Your task to perform on an android device: Add "razer blade" to the cart on amazon Image 0: 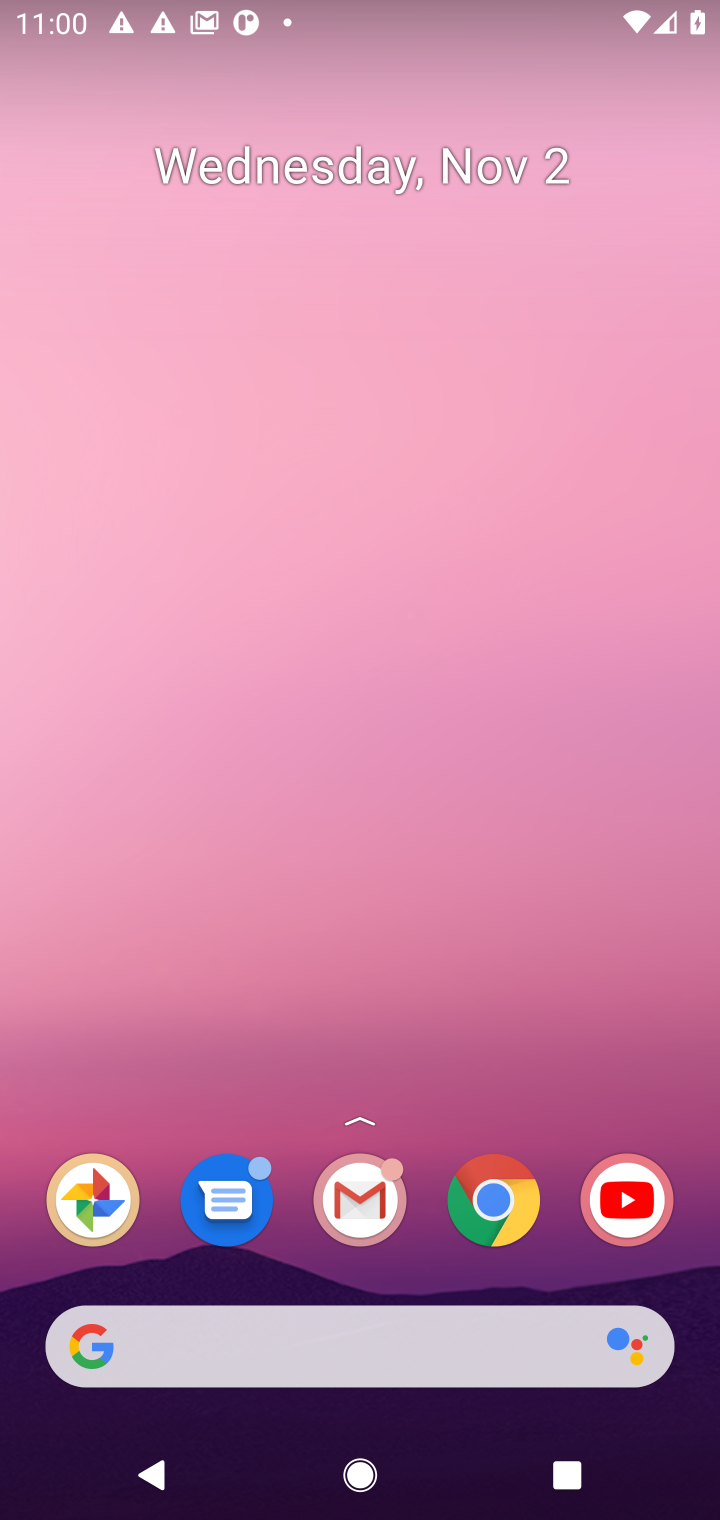
Step 0: click (495, 1186)
Your task to perform on an android device: Add "razer blade" to the cart on amazon Image 1: 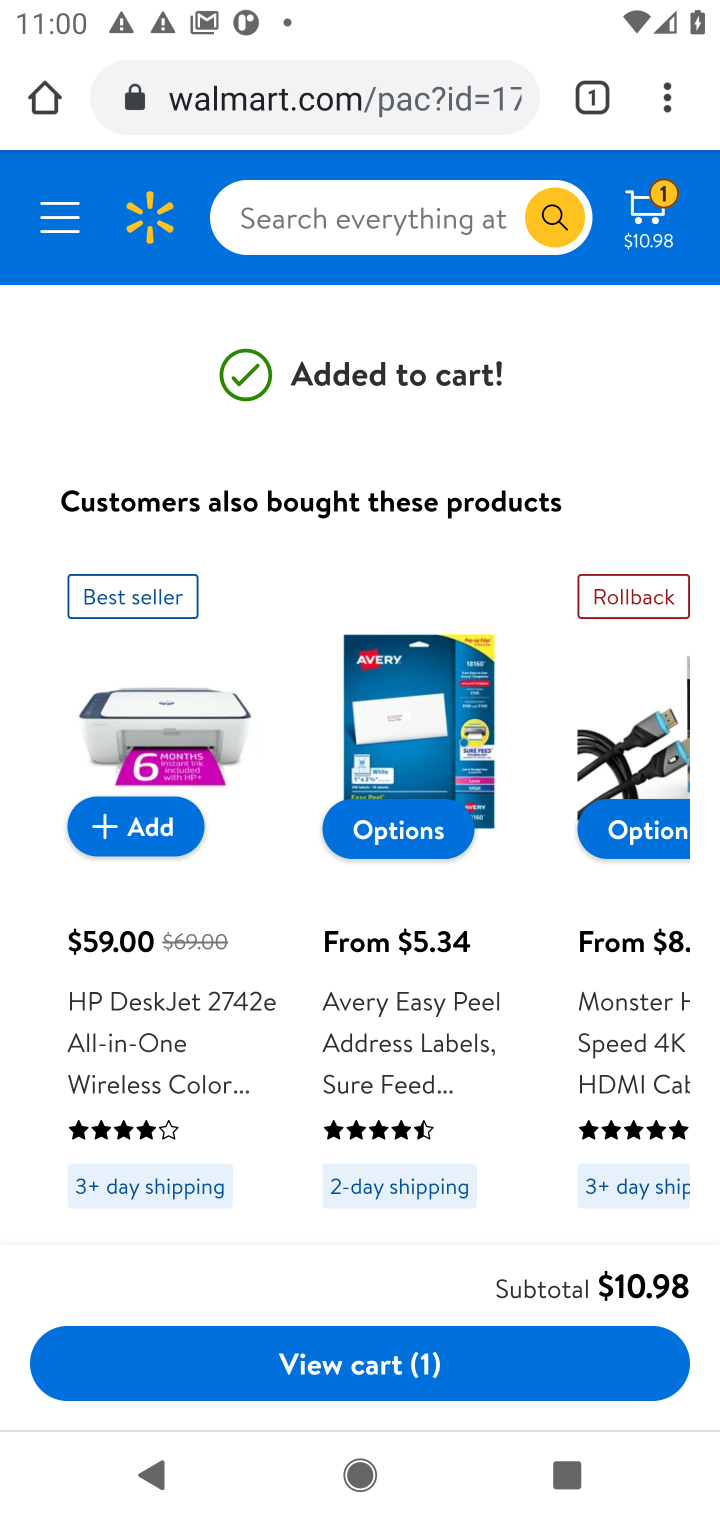
Step 1: click (389, 107)
Your task to perform on an android device: Add "razer blade" to the cart on amazon Image 2: 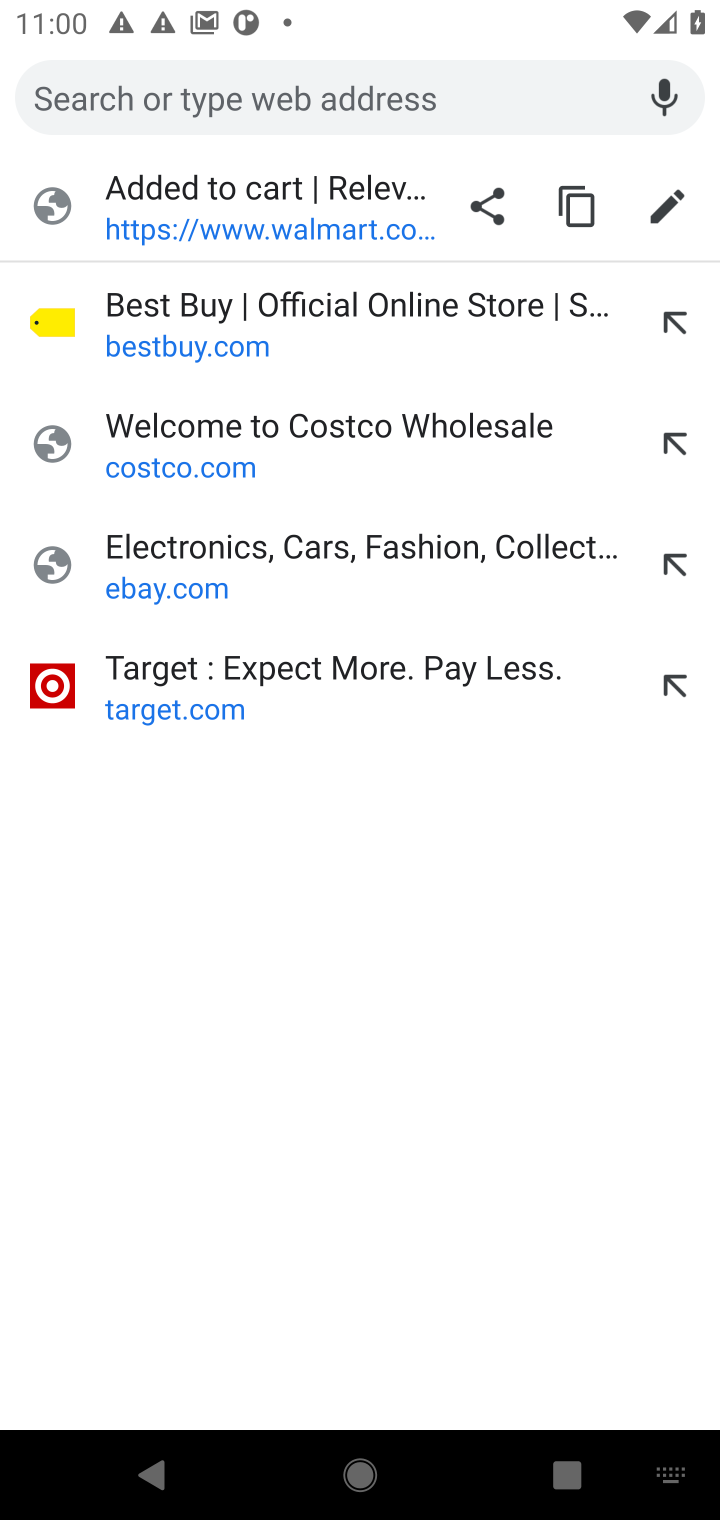
Step 2: type "amazon"
Your task to perform on an android device: Add "razer blade" to the cart on amazon Image 3: 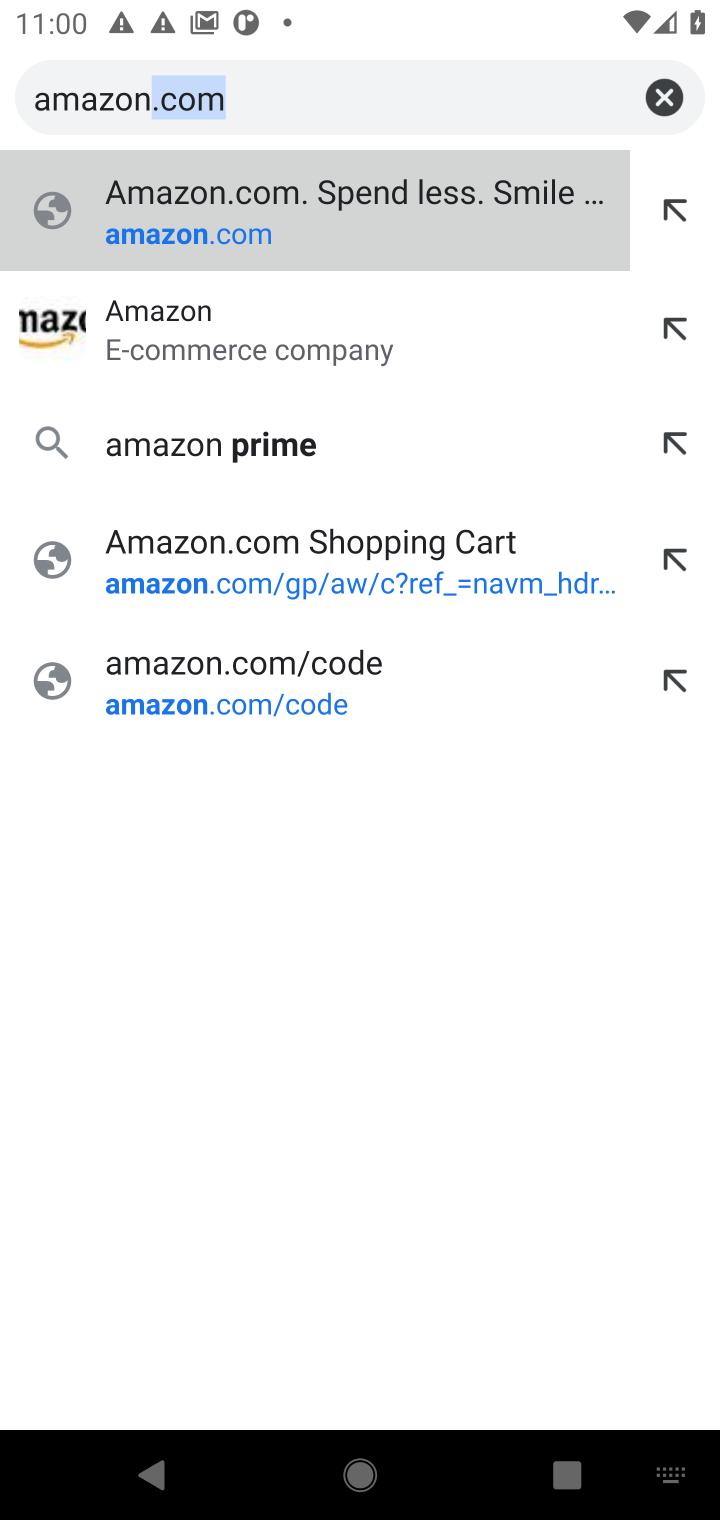
Step 3: press enter
Your task to perform on an android device: Add "razer blade" to the cart on amazon Image 4: 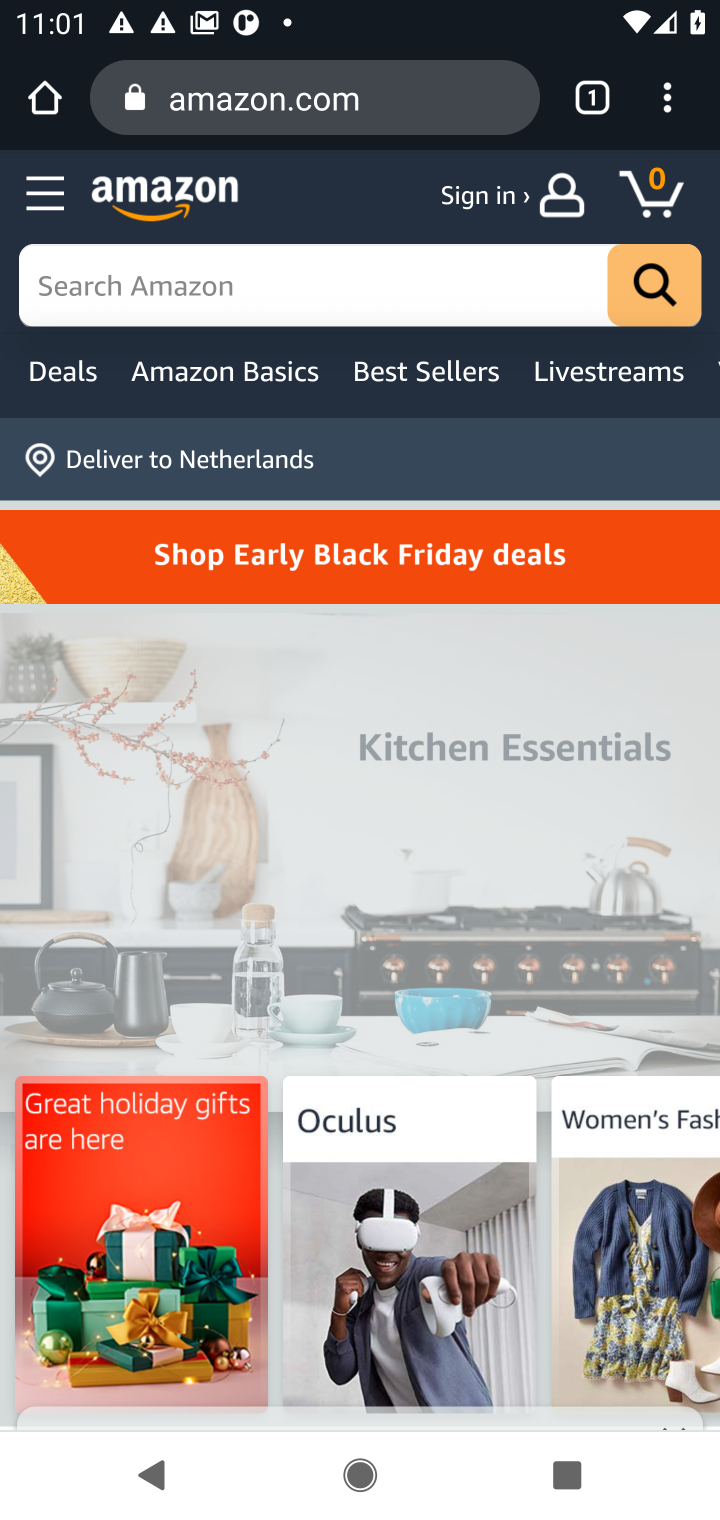
Step 4: click (168, 297)
Your task to perform on an android device: Add "razer blade" to the cart on amazon Image 5: 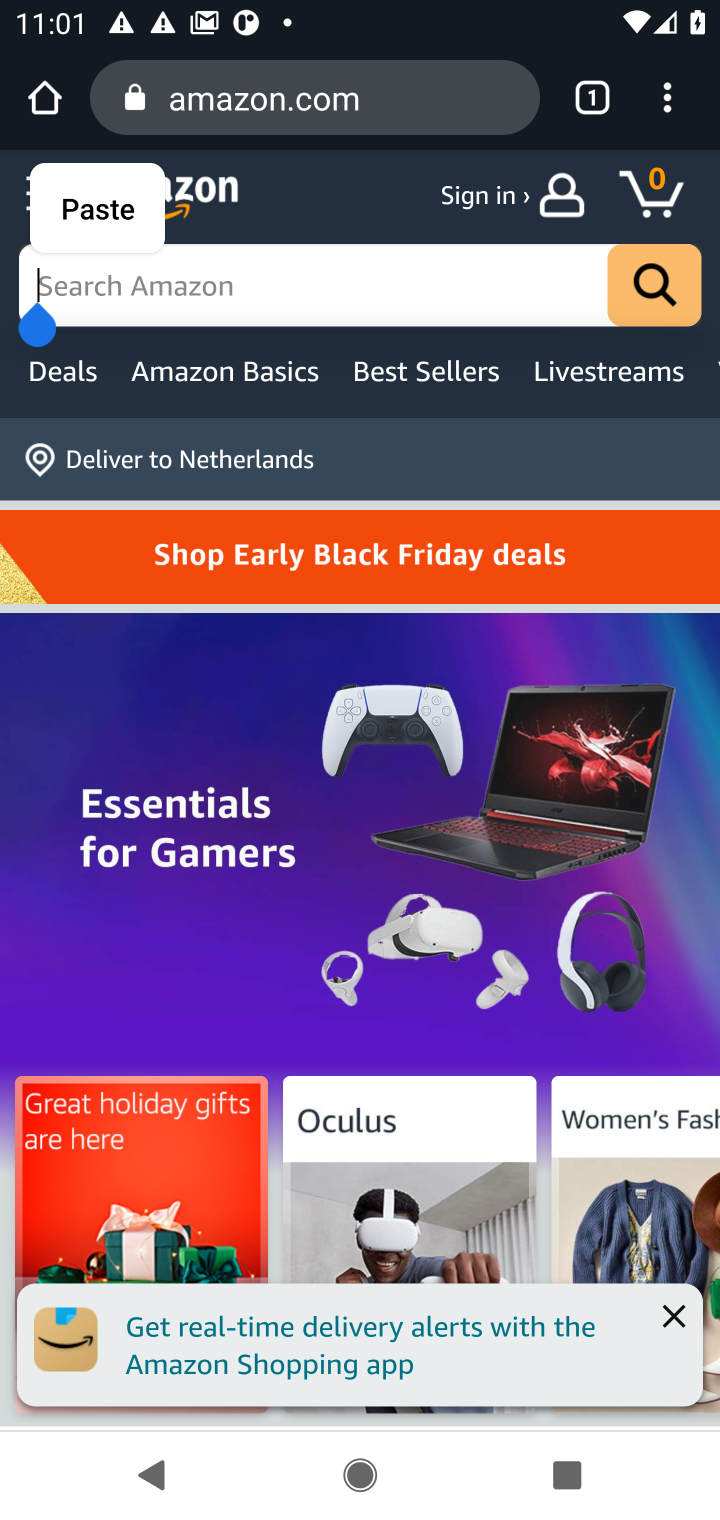
Step 5: type "razer blade"
Your task to perform on an android device: Add "razer blade" to the cart on amazon Image 6: 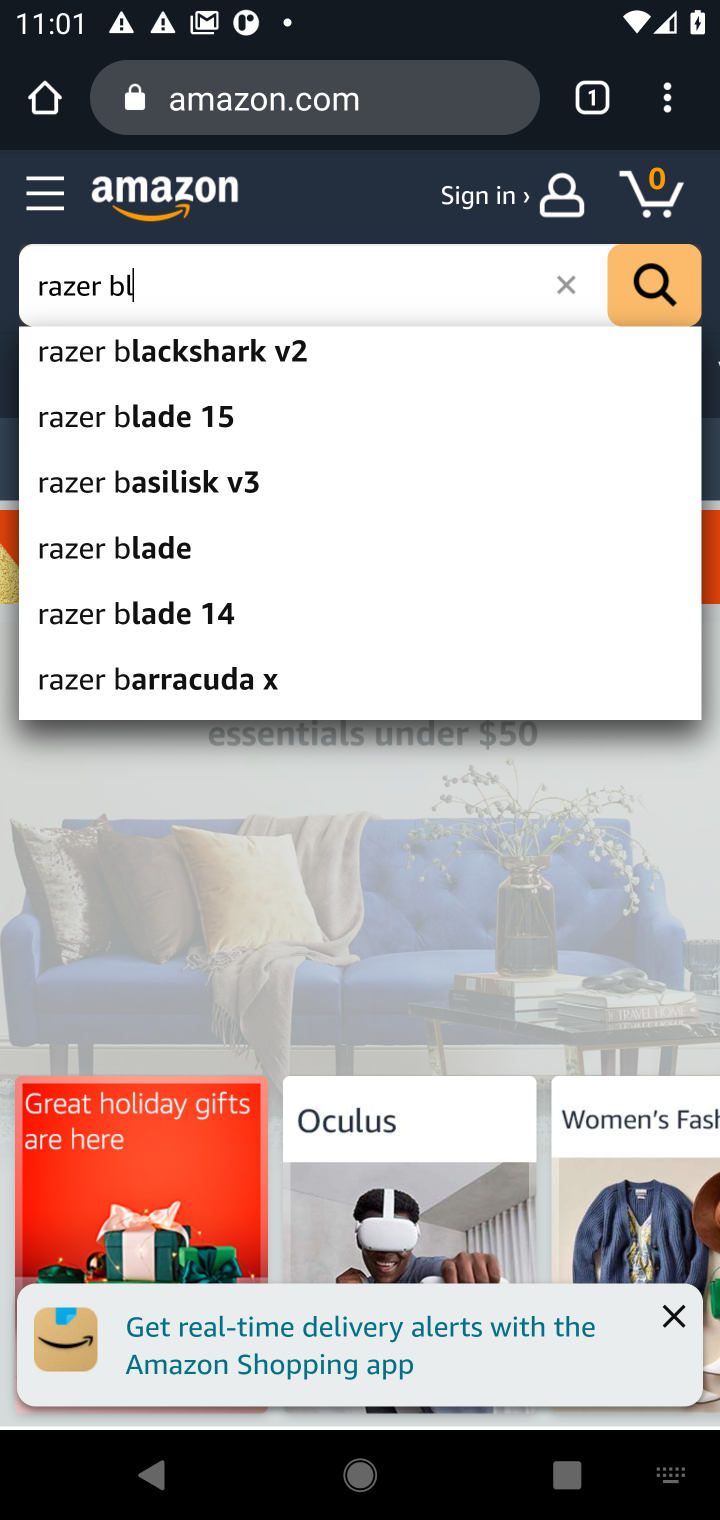
Step 6: press enter
Your task to perform on an android device: Add "razer blade" to the cart on amazon Image 7: 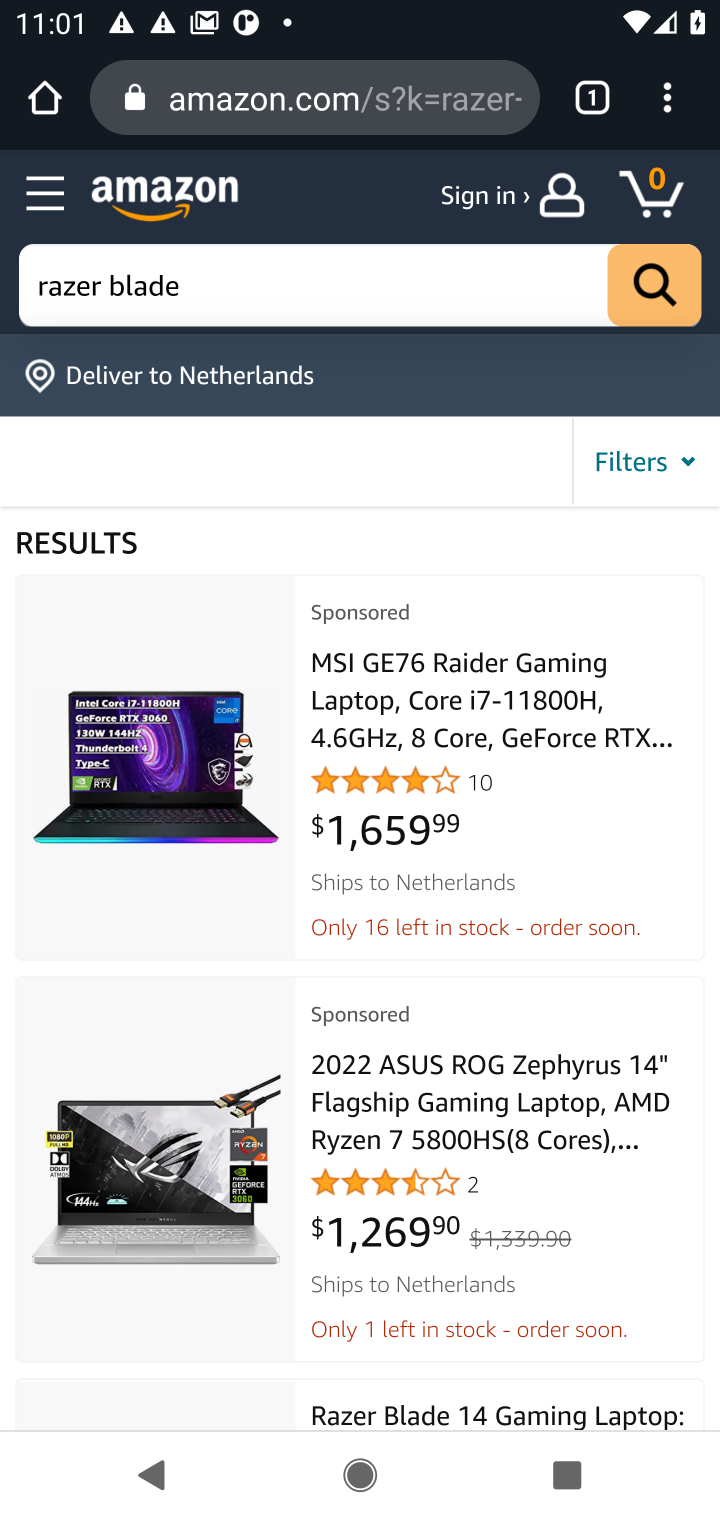
Step 7: drag from (566, 1261) to (613, 920)
Your task to perform on an android device: Add "razer blade" to the cart on amazon Image 8: 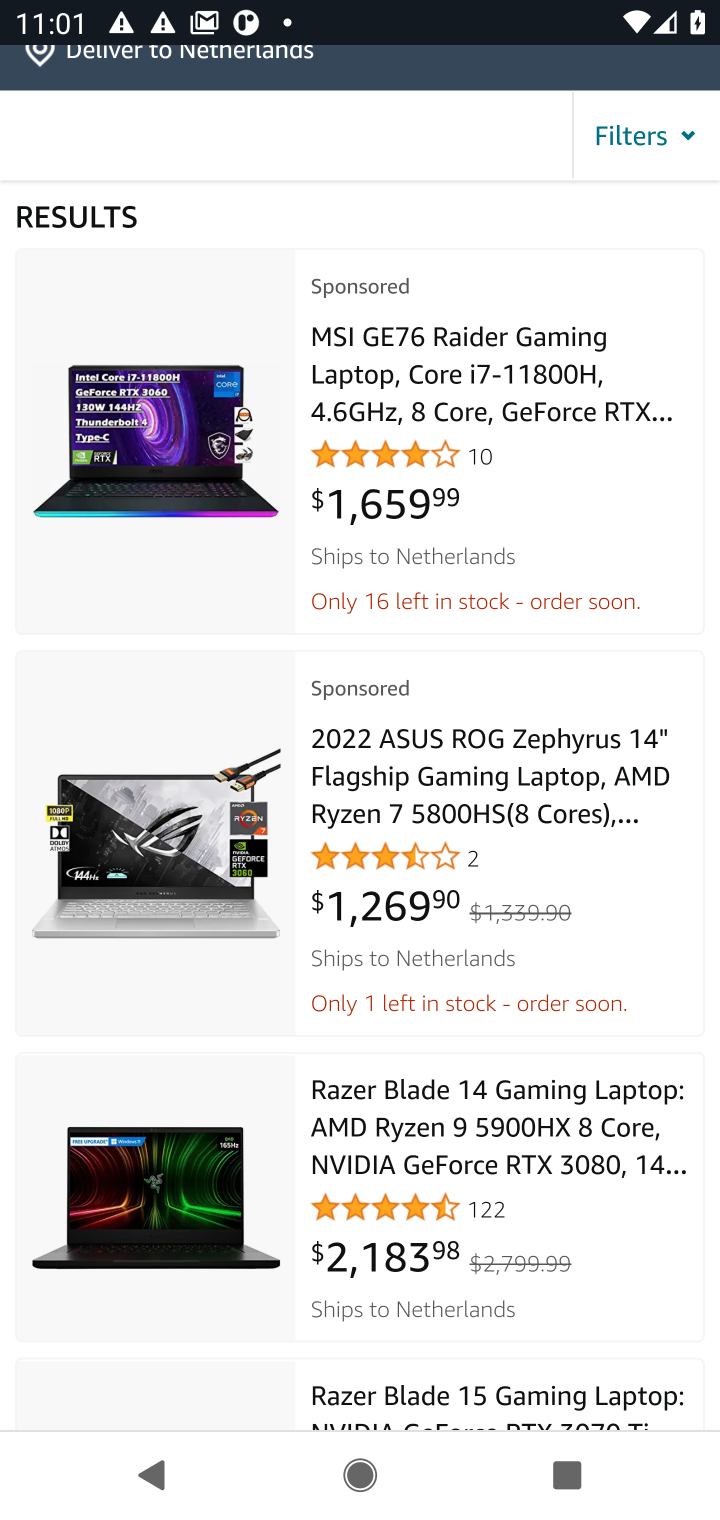
Step 8: click (178, 1169)
Your task to perform on an android device: Add "razer blade" to the cart on amazon Image 9: 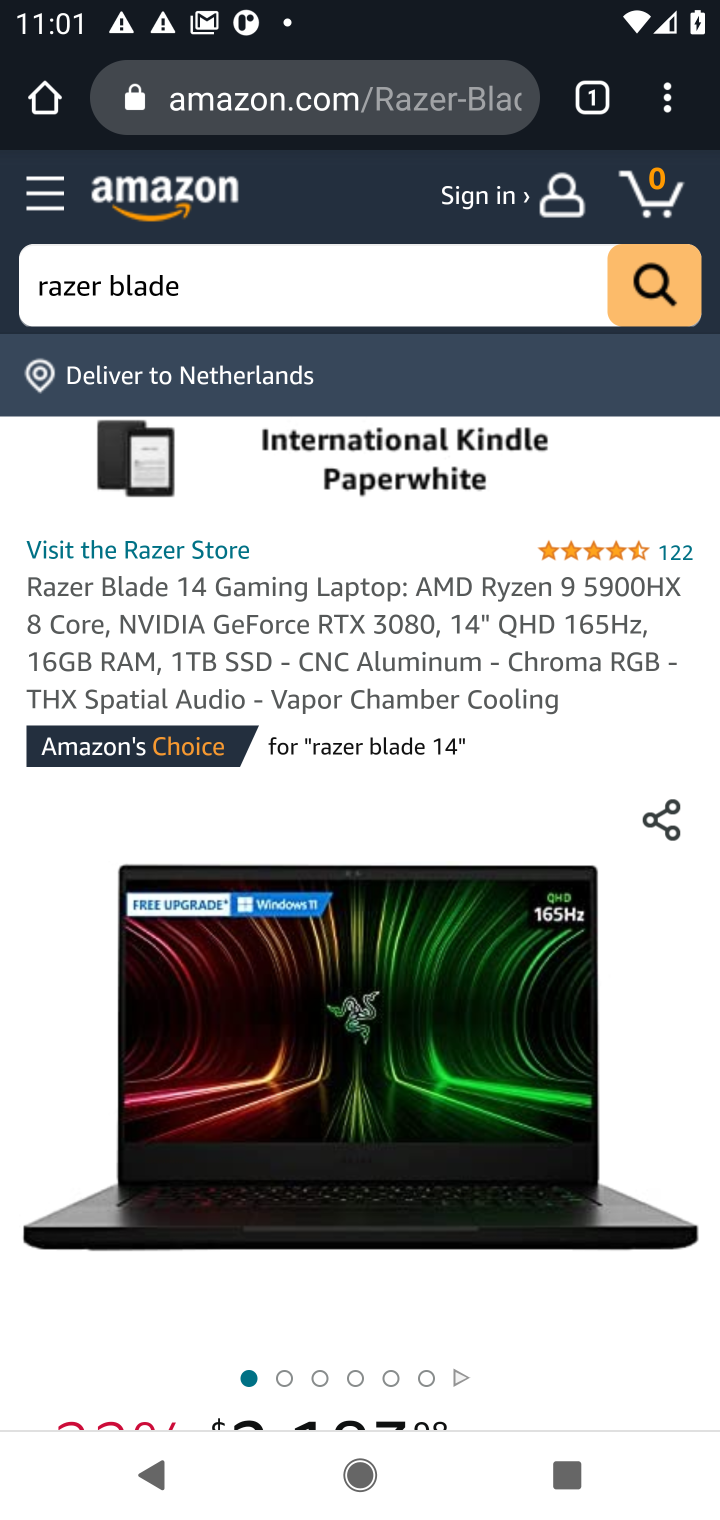
Step 9: drag from (478, 1041) to (550, 424)
Your task to perform on an android device: Add "razer blade" to the cart on amazon Image 10: 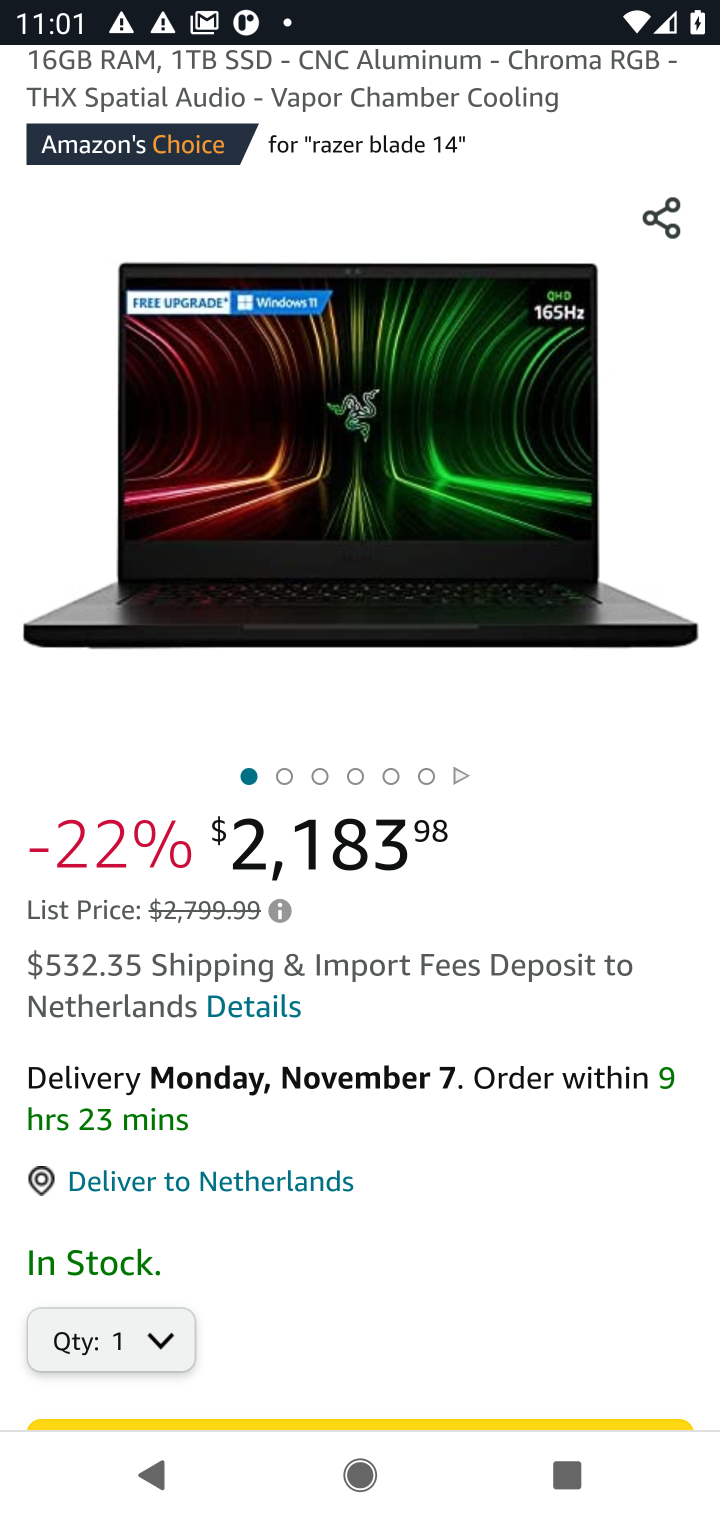
Step 10: drag from (626, 1180) to (605, 543)
Your task to perform on an android device: Add "razer blade" to the cart on amazon Image 11: 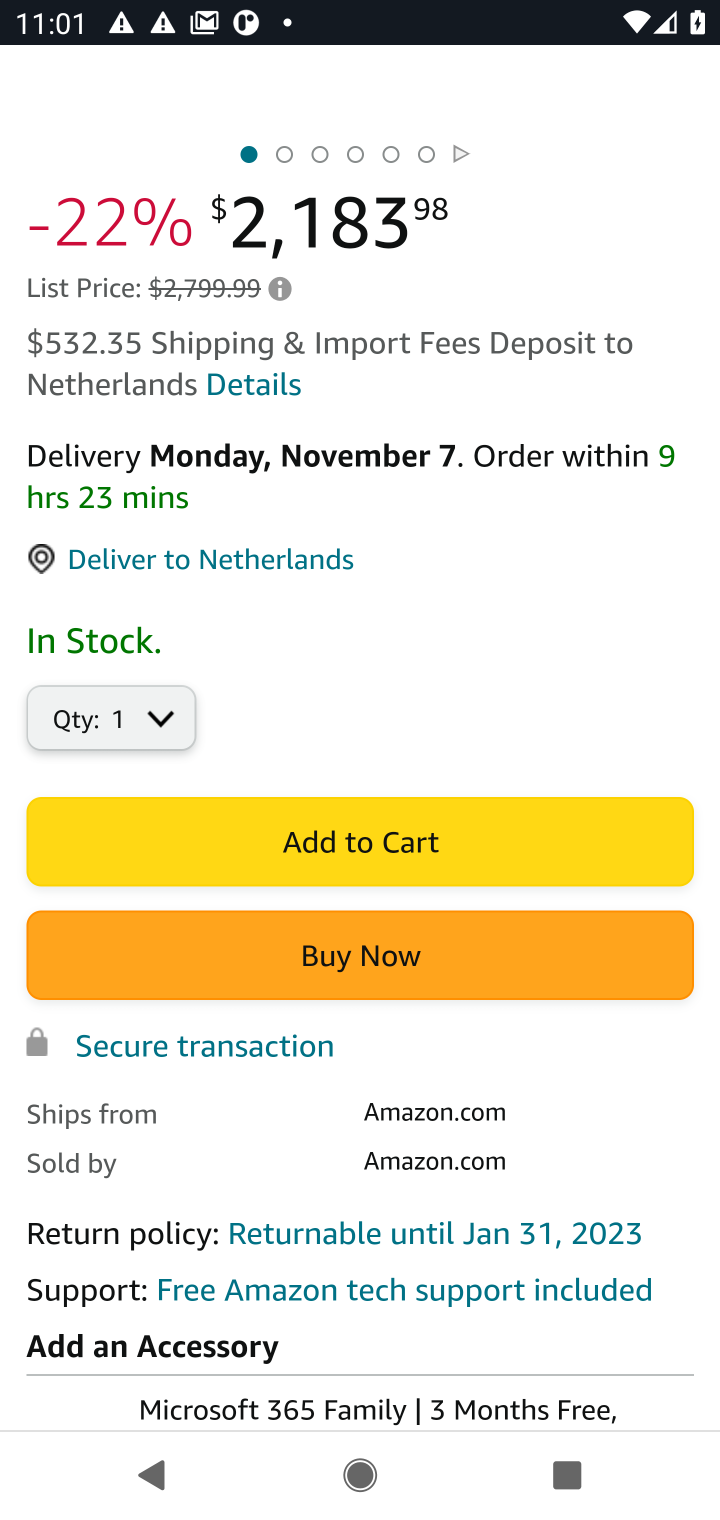
Step 11: click (518, 836)
Your task to perform on an android device: Add "razer blade" to the cart on amazon Image 12: 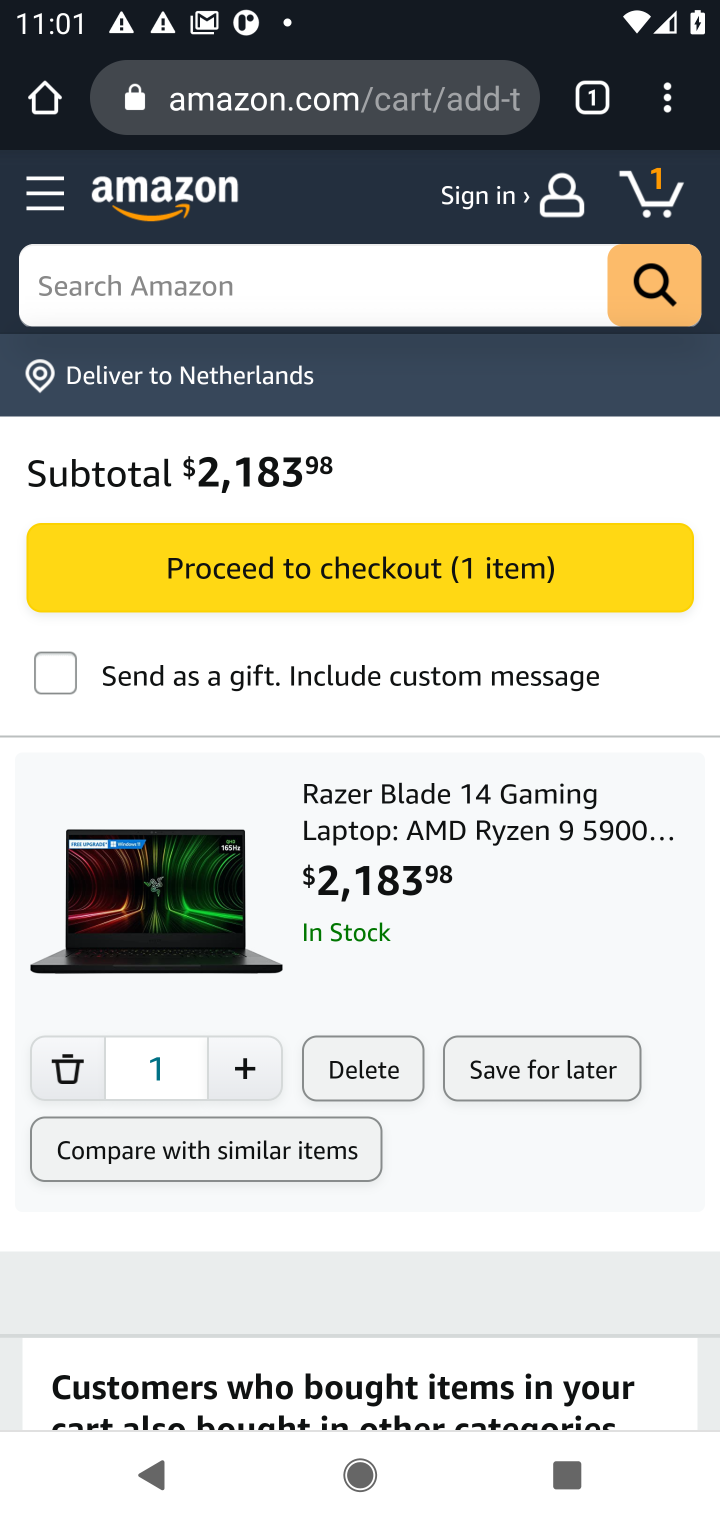
Step 12: task complete